Your task to perform on an android device: Is it going to rain this weekend? Image 0: 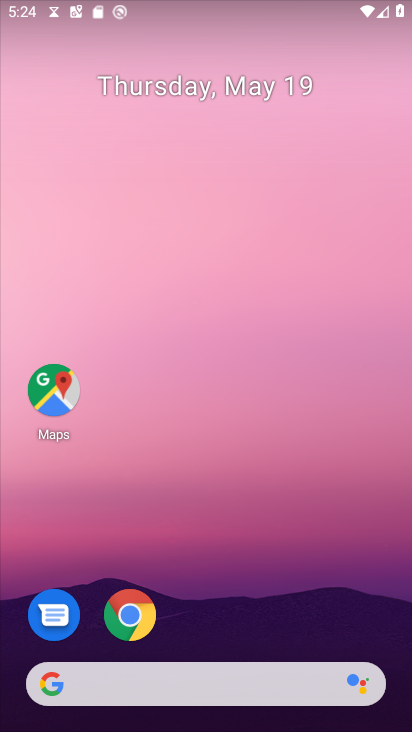
Step 0: drag from (276, 587) to (235, 24)
Your task to perform on an android device: Is it going to rain this weekend? Image 1: 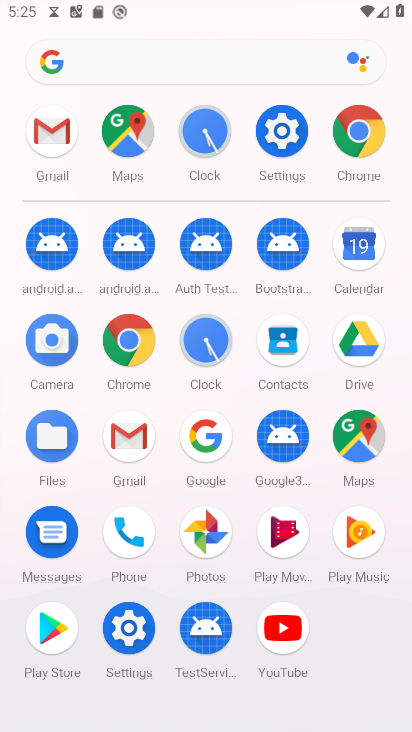
Step 1: click (201, 436)
Your task to perform on an android device: Is it going to rain this weekend? Image 2: 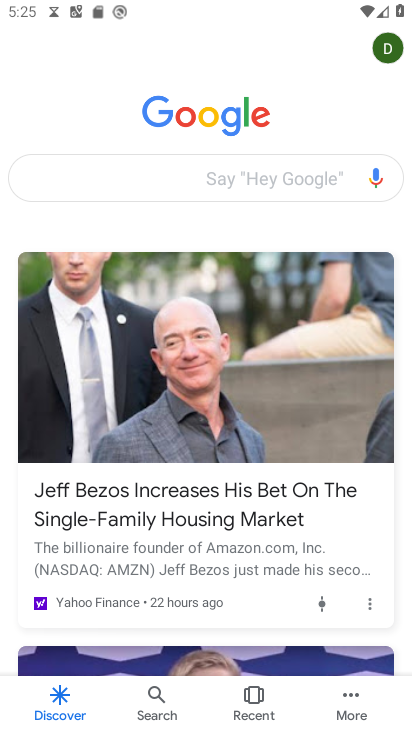
Step 2: drag from (341, 545) to (280, 16)
Your task to perform on an android device: Is it going to rain this weekend? Image 3: 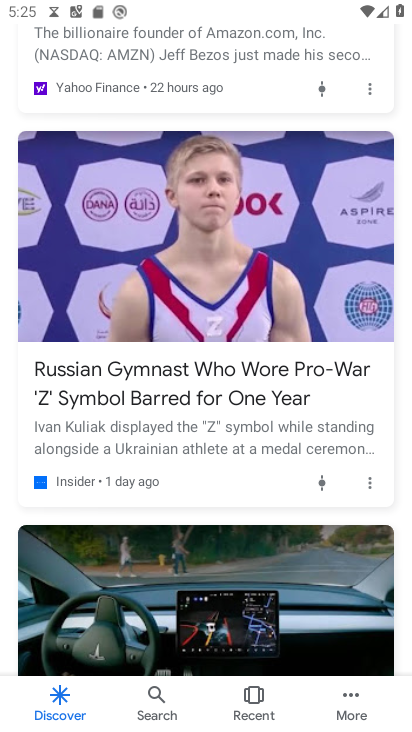
Step 3: drag from (328, 620) to (264, 12)
Your task to perform on an android device: Is it going to rain this weekend? Image 4: 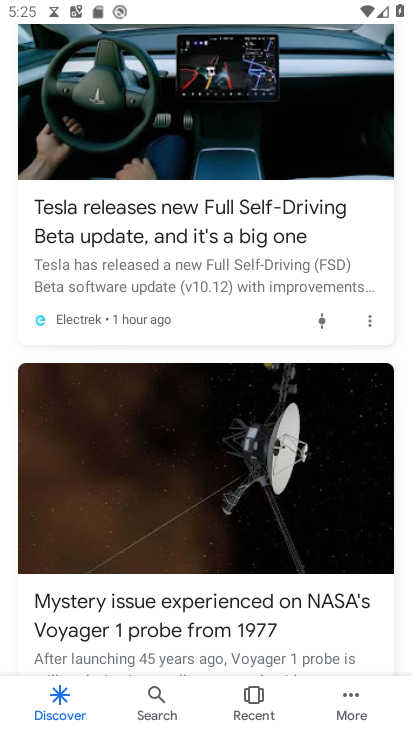
Step 4: drag from (351, 591) to (288, 161)
Your task to perform on an android device: Is it going to rain this weekend? Image 5: 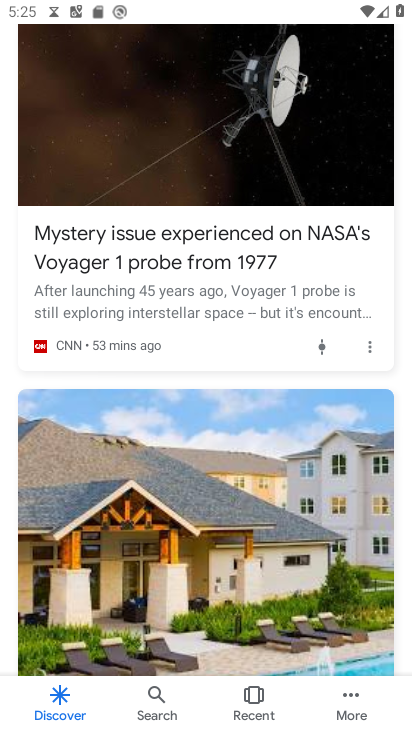
Step 5: click (356, 704)
Your task to perform on an android device: Is it going to rain this weekend? Image 6: 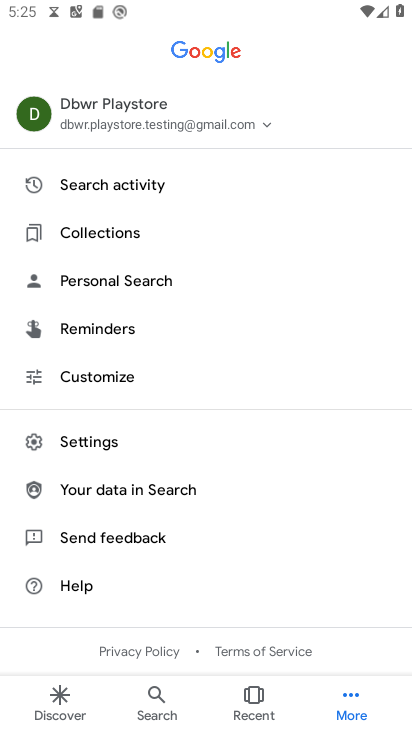
Step 6: press back button
Your task to perform on an android device: Is it going to rain this weekend? Image 7: 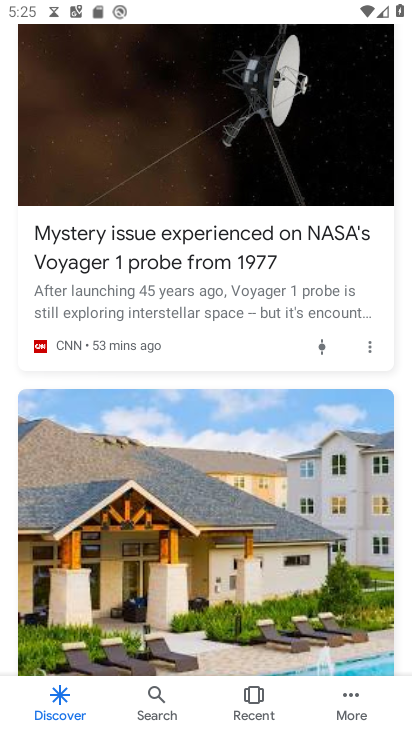
Step 7: drag from (299, 300) to (284, 691)
Your task to perform on an android device: Is it going to rain this weekend? Image 8: 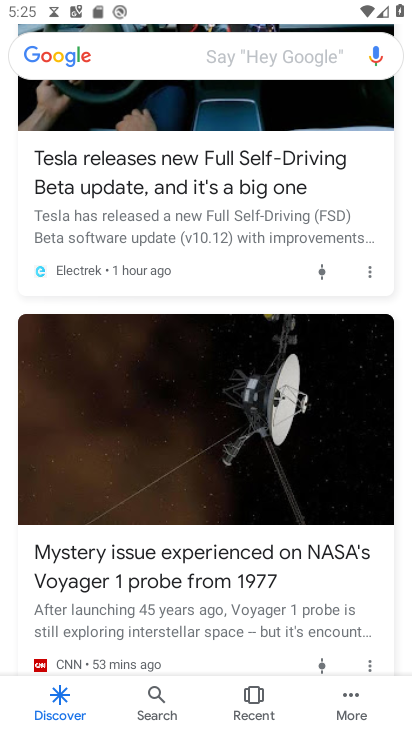
Step 8: drag from (261, 345) to (213, 730)
Your task to perform on an android device: Is it going to rain this weekend? Image 9: 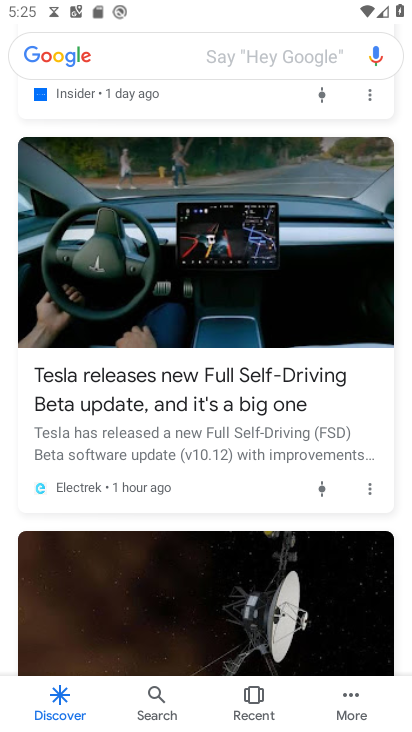
Step 9: drag from (125, 108) to (140, 637)
Your task to perform on an android device: Is it going to rain this weekend? Image 10: 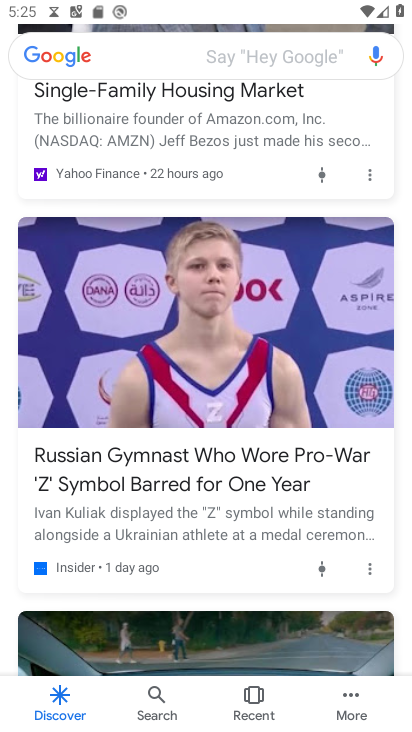
Step 10: drag from (242, 246) to (240, 578)
Your task to perform on an android device: Is it going to rain this weekend? Image 11: 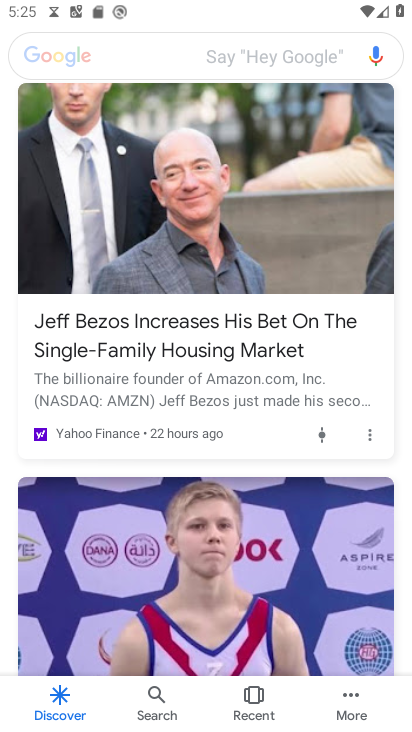
Step 11: drag from (189, 226) to (229, 585)
Your task to perform on an android device: Is it going to rain this weekend? Image 12: 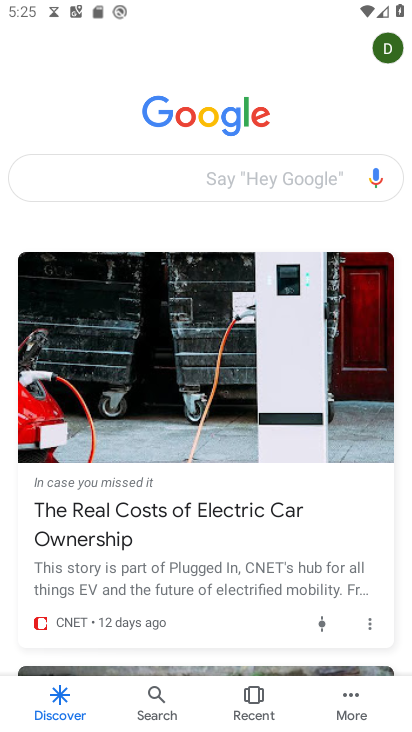
Step 12: click (157, 700)
Your task to perform on an android device: Is it going to rain this weekend? Image 13: 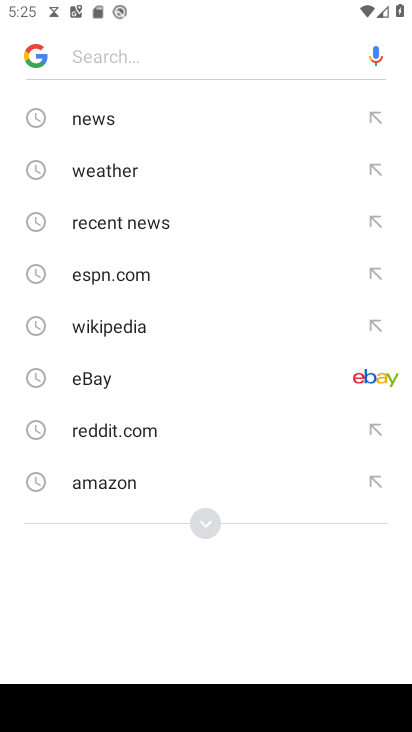
Step 13: click (93, 175)
Your task to perform on an android device: Is it going to rain this weekend? Image 14: 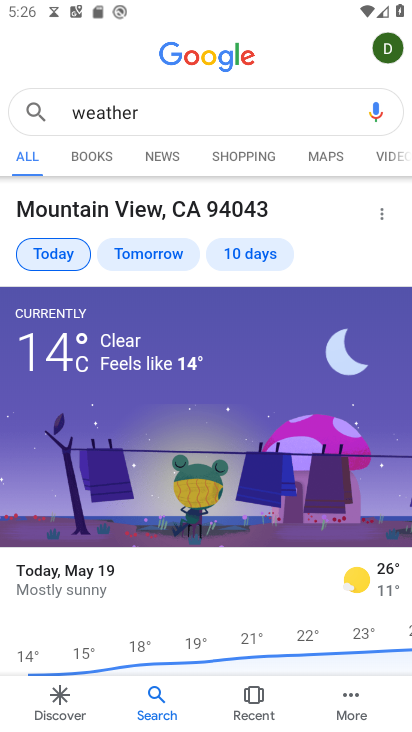
Step 14: click (219, 246)
Your task to perform on an android device: Is it going to rain this weekend? Image 15: 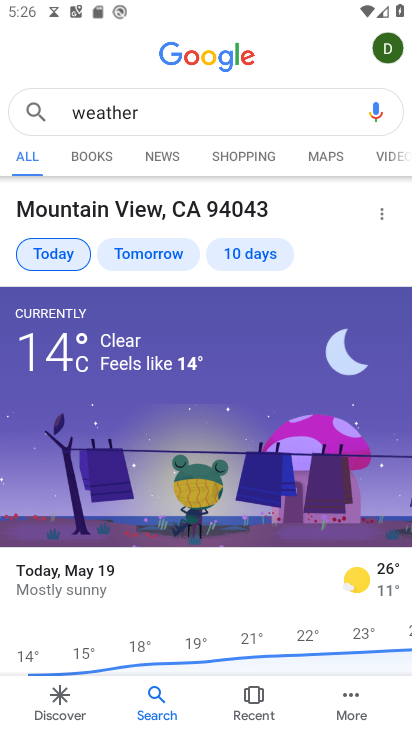
Step 15: click (246, 258)
Your task to perform on an android device: Is it going to rain this weekend? Image 16: 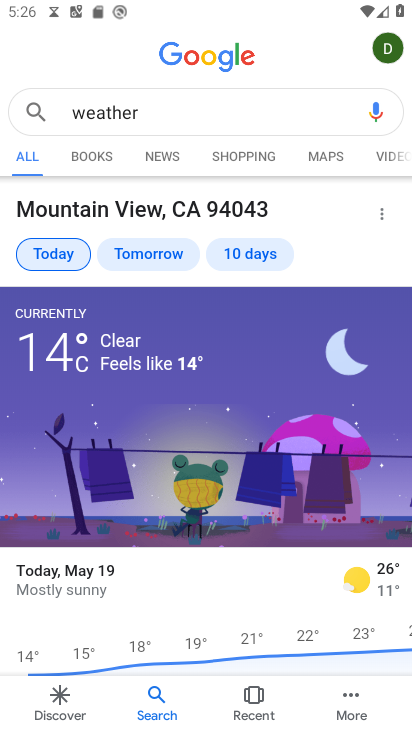
Step 16: click (246, 258)
Your task to perform on an android device: Is it going to rain this weekend? Image 17: 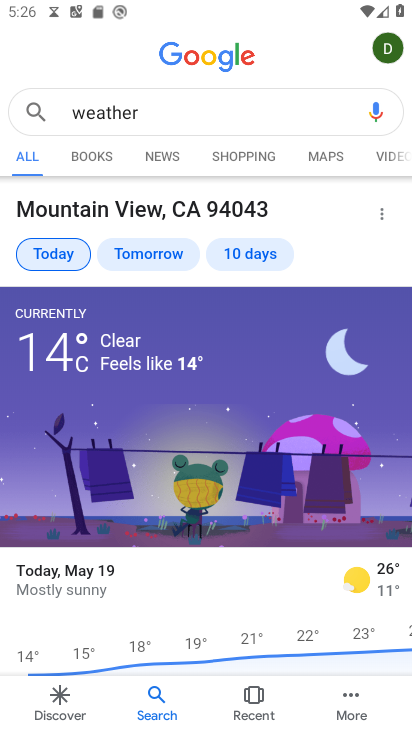
Step 17: click (246, 258)
Your task to perform on an android device: Is it going to rain this weekend? Image 18: 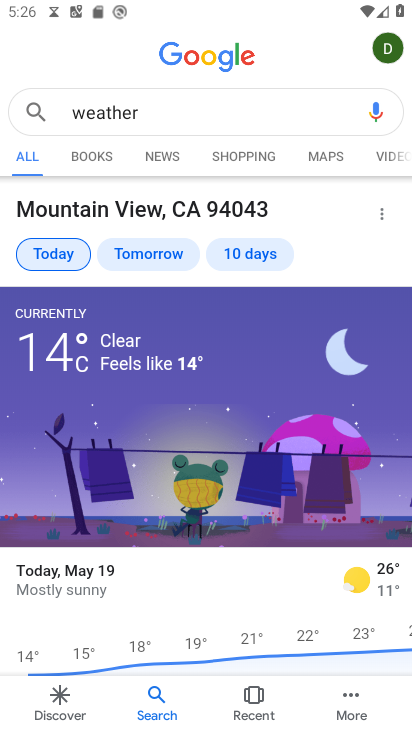
Step 18: click (246, 258)
Your task to perform on an android device: Is it going to rain this weekend? Image 19: 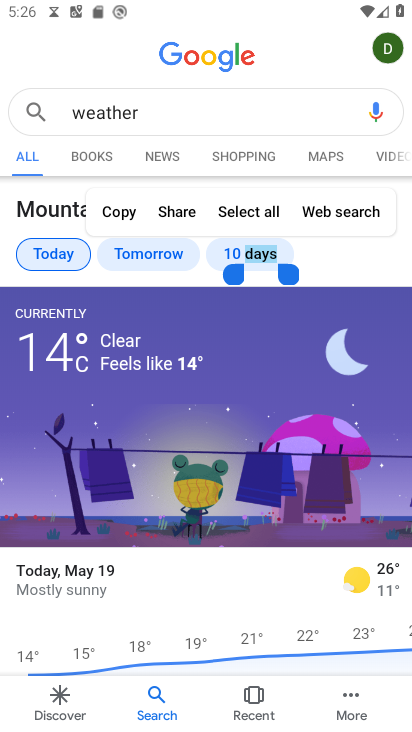
Step 19: click (357, 279)
Your task to perform on an android device: Is it going to rain this weekend? Image 20: 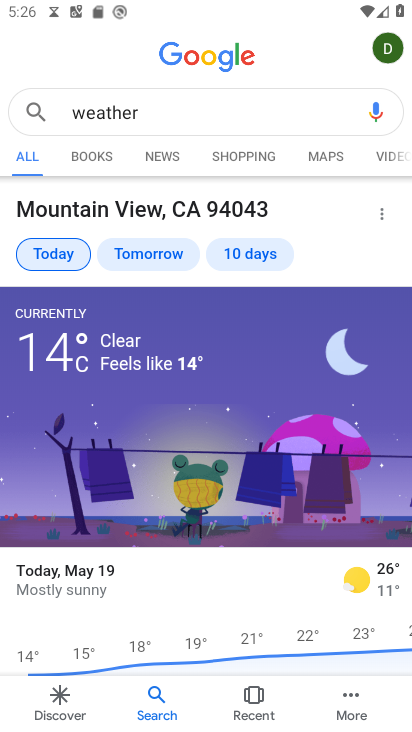
Step 20: task complete